Your task to perform on an android device: set default search engine in the chrome app Image 0: 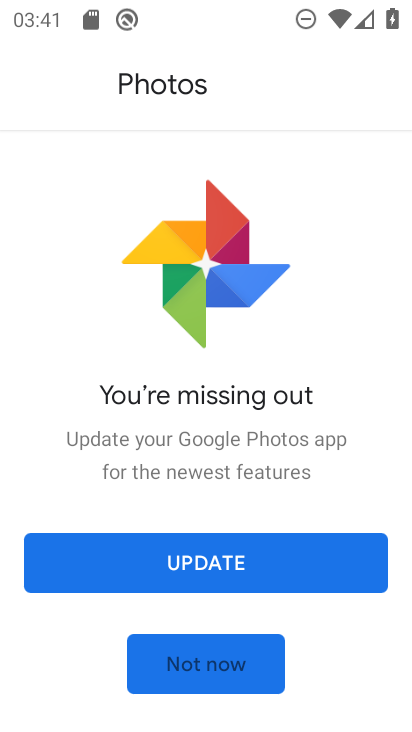
Step 0: press home button
Your task to perform on an android device: set default search engine in the chrome app Image 1: 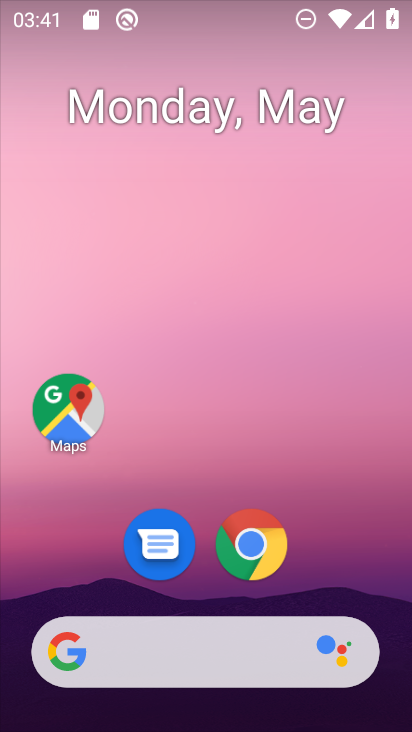
Step 1: drag from (366, 566) to (369, 104)
Your task to perform on an android device: set default search engine in the chrome app Image 2: 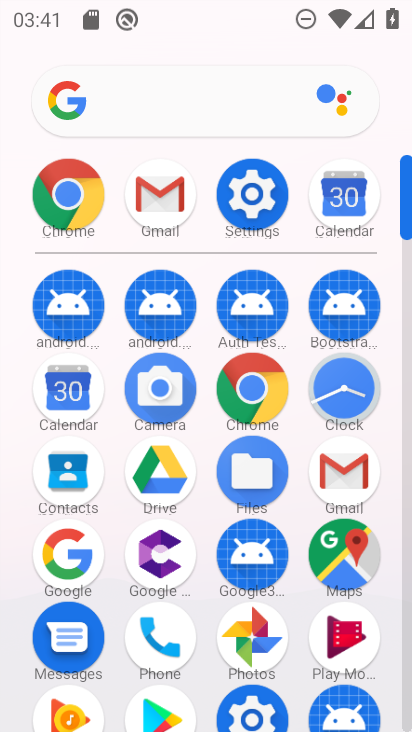
Step 2: click (275, 395)
Your task to perform on an android device: set default search engine in the chrome app Image 3: 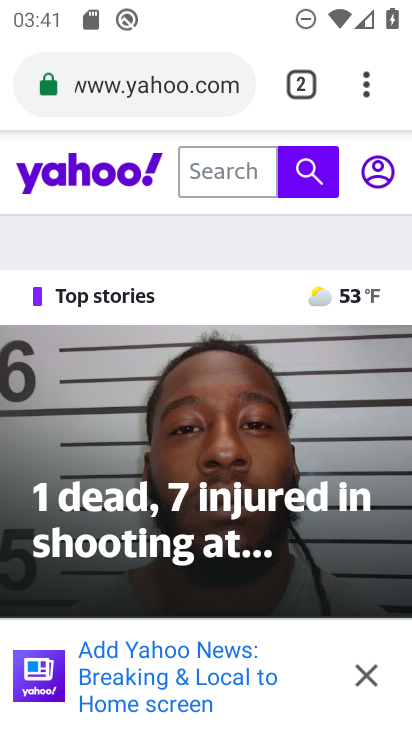
Step 3: click (364, 92)
Your task to perform on an android device: set default search engine in the chrome app Image 4: 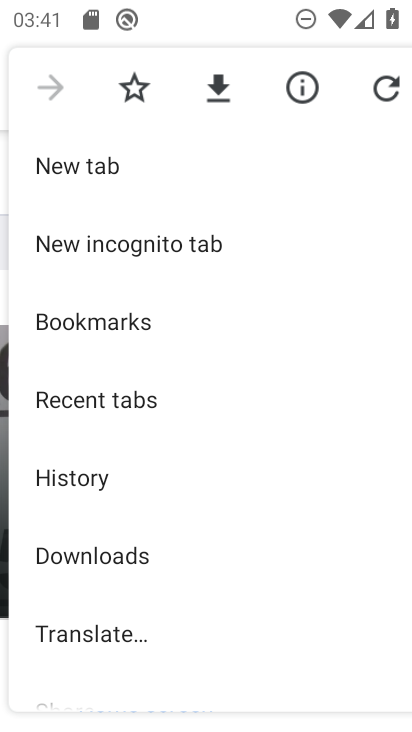
Step 4: drag from (315, 509) to (339, 414)
Your task to perform on an android device: set default search engine in the chrome app Image 5: 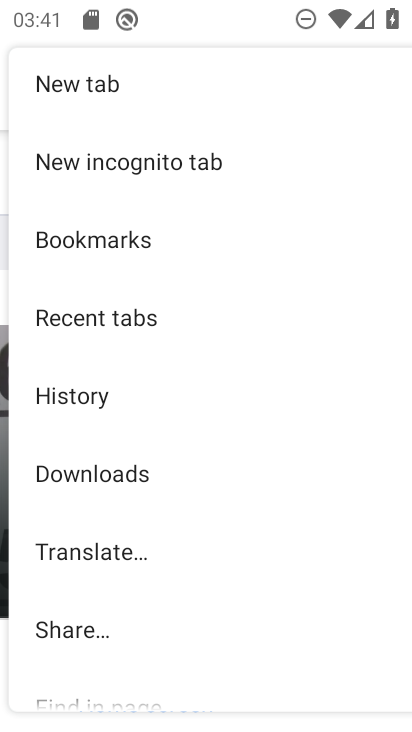
Step 5: drag from (301, 562) to (309, 412)
Your task to perform on an android device: set default search engine in the chrome app Image 6: 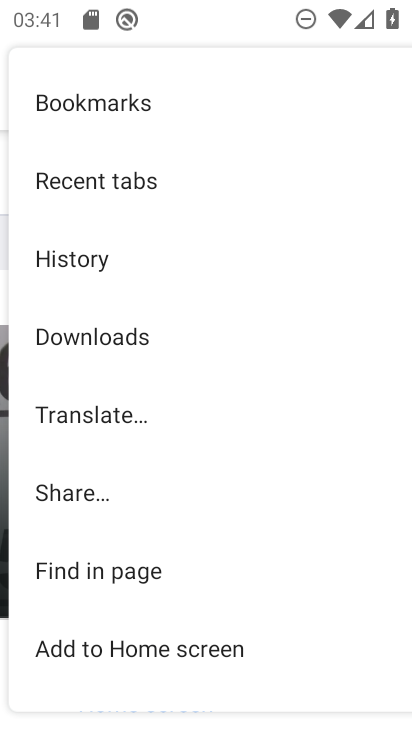
Step 6: drag from (273, 595) to (271, 451)
Your task to perform on an android device: set default search engine in the chrome app Image 7: 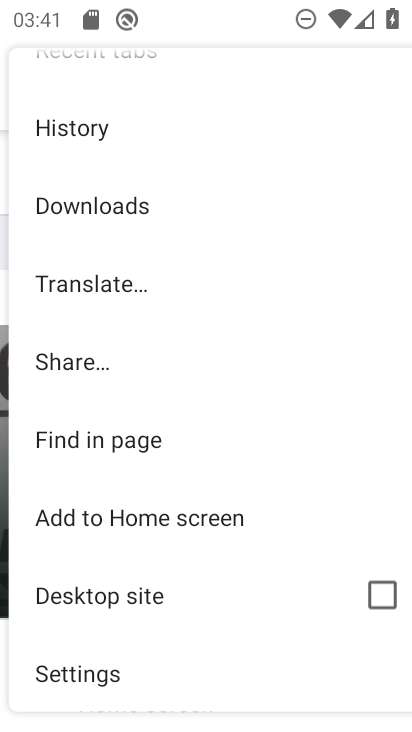
Step 7: drag from (261, 612) to (266, 468)
Your task to perform on an android device: set default search engine in the chrome app Image 8: 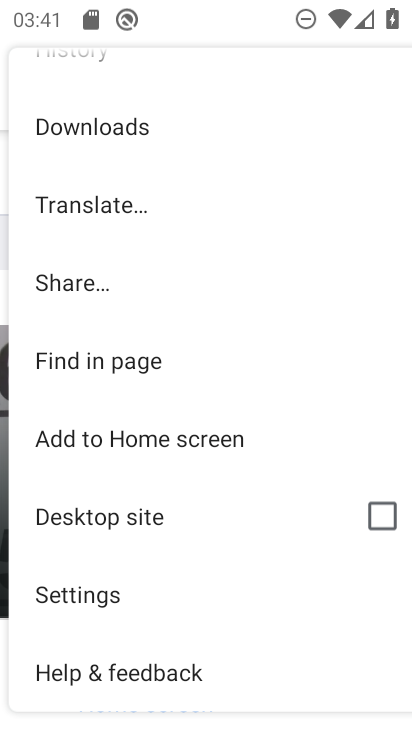
Step 8: click (127, 604)
Your task to perform on an android device: set default search engine in the chrome app Image 9: 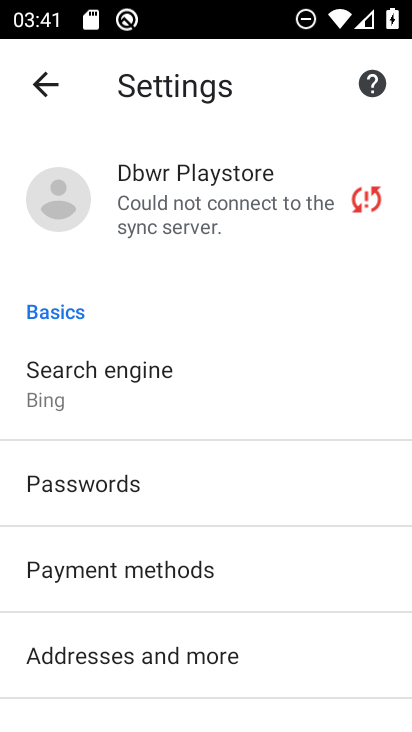
Step 9: drag from (321, 571) to (327, 510)
Your task to perform on an android device: set default search engine in the chrome app Image 10: 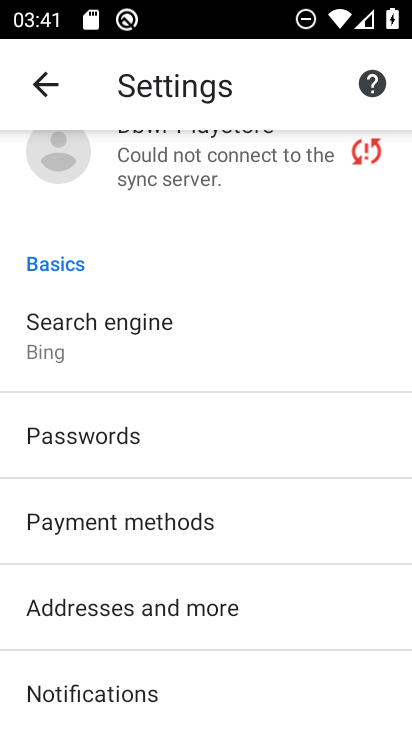
Step 10: drag from (349, 612) to (344, 526)
Your task to perform on an android device: set default search engine in the chrome app Image 11: 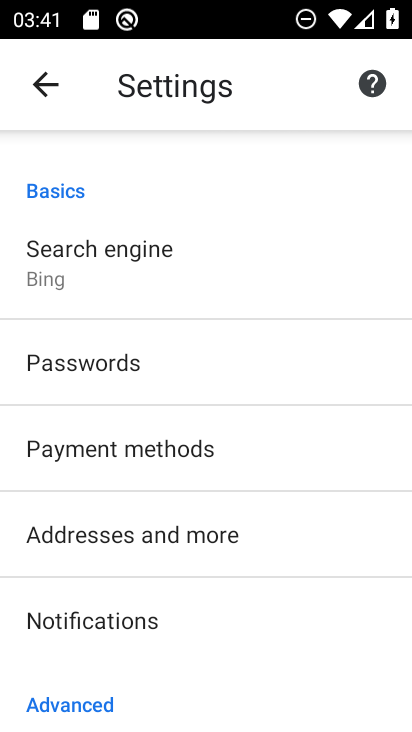
Step 11: drag from (340, 636) to (332, 553)
Your task to perform on an android device: set default search engine in the chrome app Image 12: 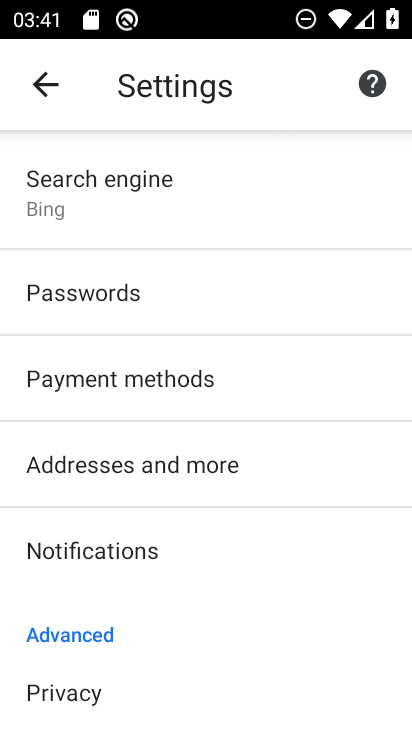
Step 12: drag from (334, 656) to (333, 550)
Your task to perform on an android device: set default search engine in the chrome app Image 13: 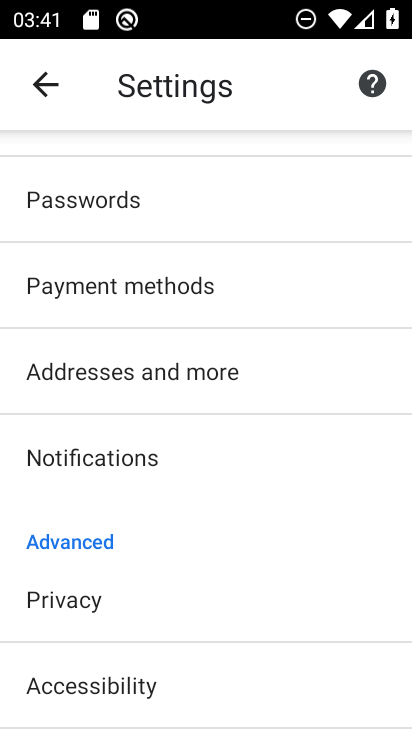
Step 13: drag from (294, 586) to (302, 509)
Your task to perform on an android device: set default search engine in the chrome app Image 14: 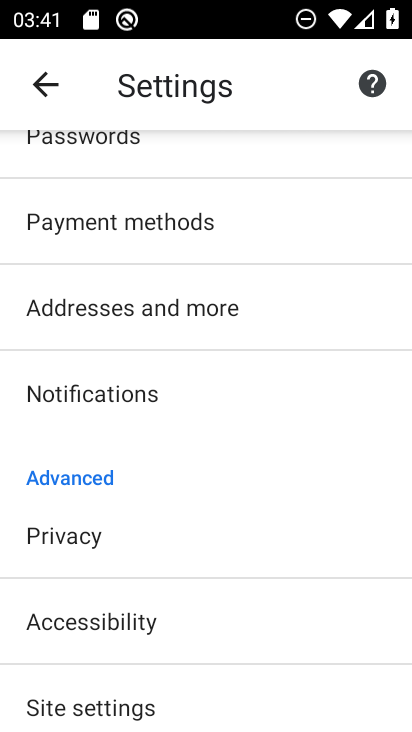
Step 14: drag from (323, 576) to (323, 500)
Your task to perform on an android device: set default search engine in the chrome app Image 15: 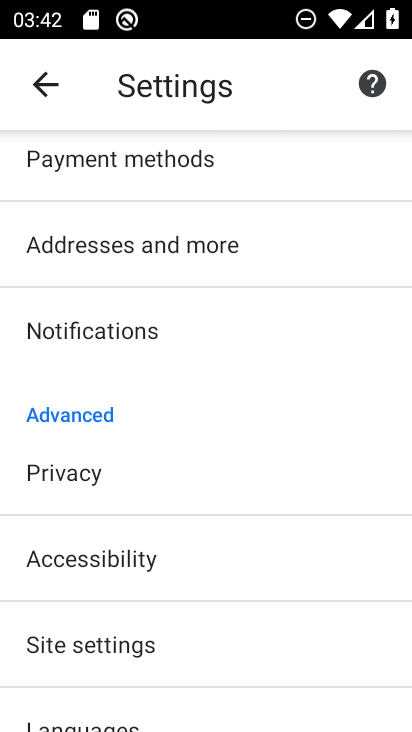
Step 15: drag from (346, 631) to (357, 525)
Your task to perform on an android device: set default search engine in the chrome app Image 16: 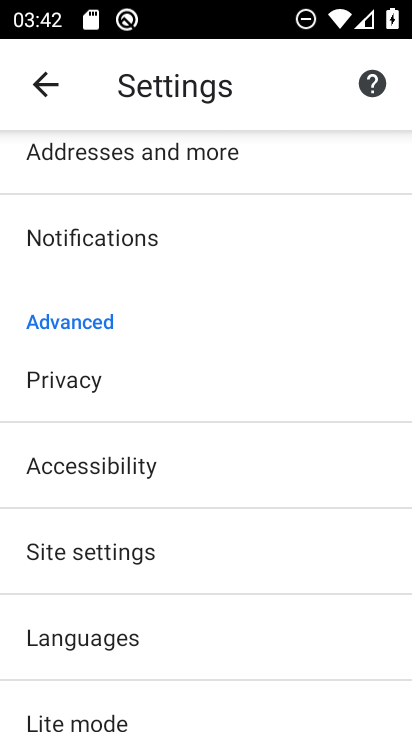
Step 16: drag from (337, 644) to (341, 540)
Your task to perform on an android device: set default search engine in the chrome app Image 17: 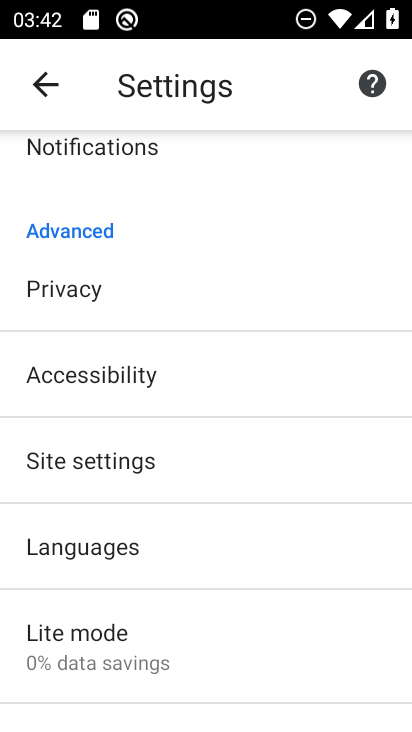
Step 17: drag from (345, 642) to (339, 520)
Your task to perform on an android device: set default search engine in the chrome app Image 18: 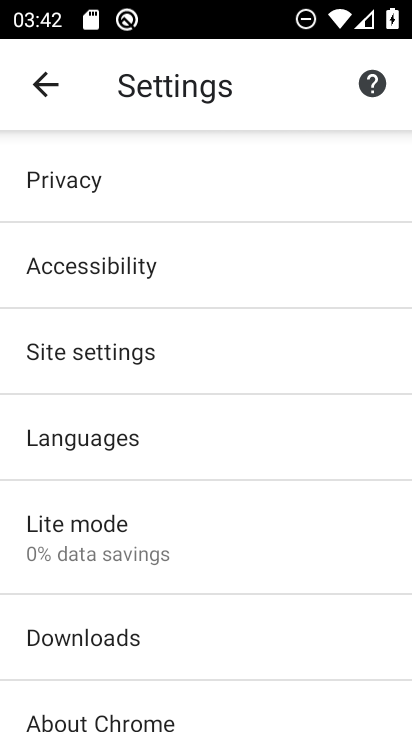
Step 18: drag from (310, 288) to (319, 386)
Your task to perform on an android device: set default search engine in the chrome app Image 19: 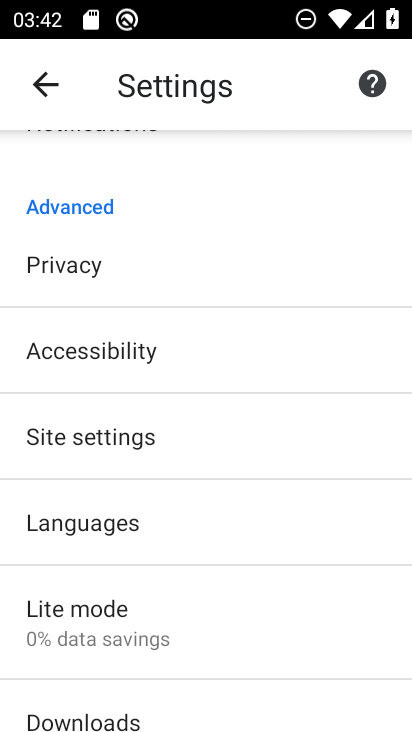
Step 19: drag from (315, 332) to (317, 405)
Your task to perform on an android device: set default search engine in the chrome app Image 20: 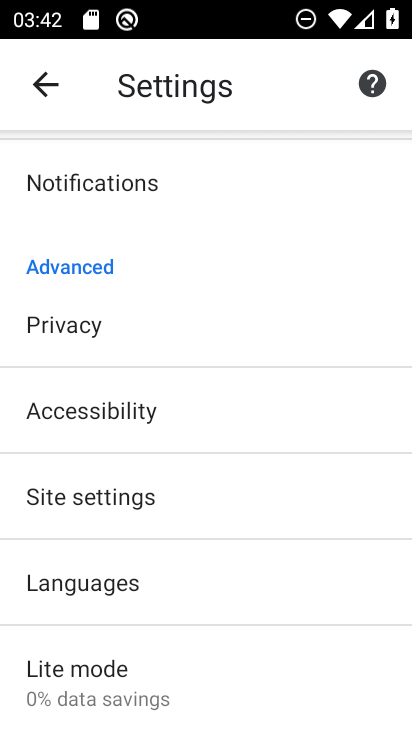
Step 20: drag from (315, 303) to (321, 397)
Your task to perform on an android device: set default search engine in the chrome app Image 21: 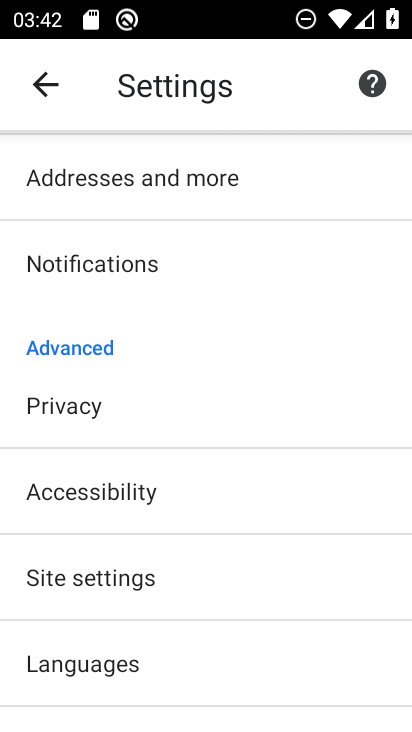
Step 21: drag from (306, 284) to (308, 436)
Your task to perform on an android device: set default search engine in the chrome app Image 22: 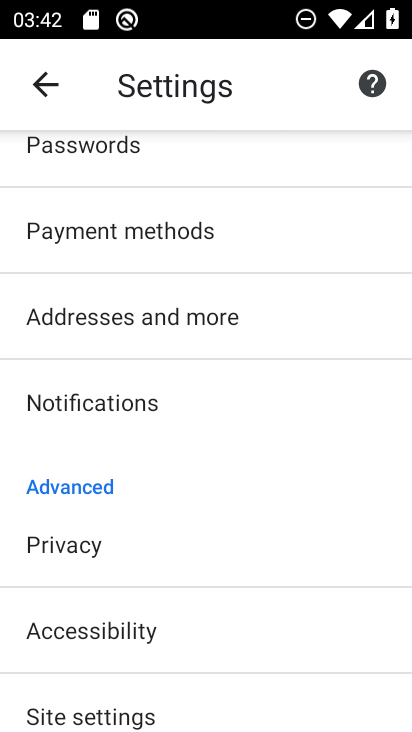
Step 22: drag from (300, 292) to (305, 418)
Your task to perform on an android device: set default search engine in the chrome app Image 23: 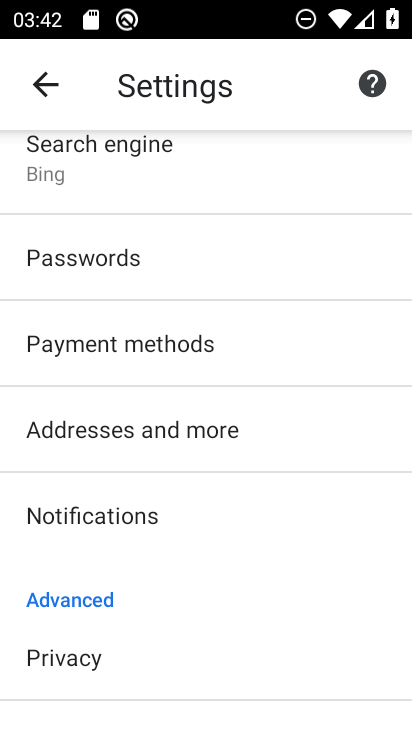
Step 23: drag from (290, 261) to (293, 399)
Your task to perform on an android device: set default search engine in the chrome app Image 24: 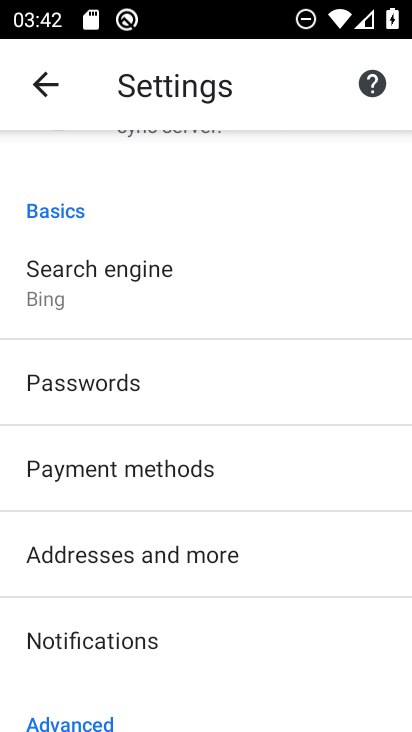
Step 24: click (200, 296)
Your task to perform on an android device: set default search engine in the chrome app Image 25: 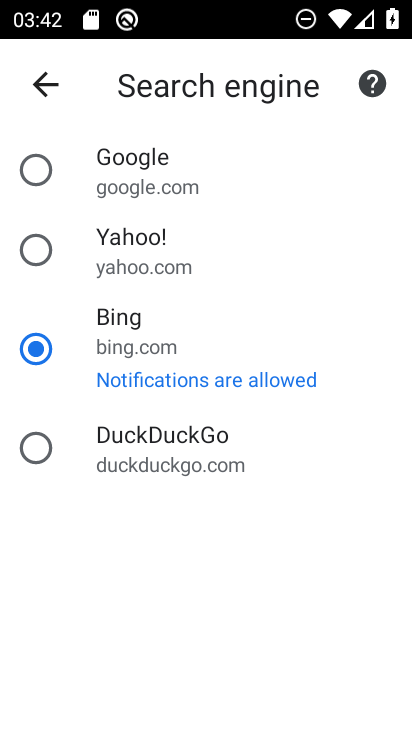
Step 25: click (199, 206)
Your task to perform on an android device: set default search engine in the chrome app Image 26: 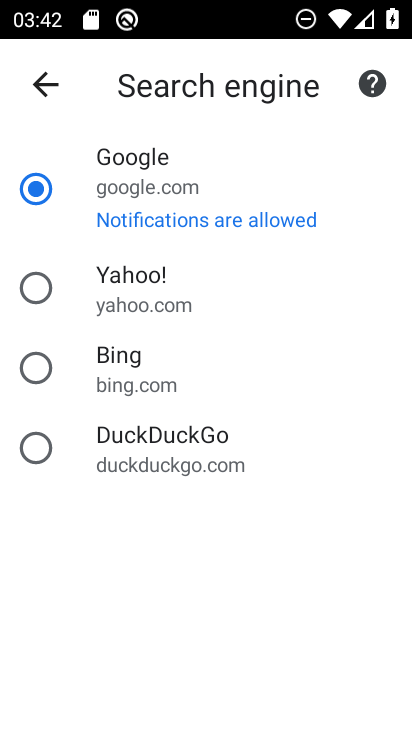
Step 26: task complete